Your task to perform on an android device: turn vacation reply on in the gmail app Image 0: 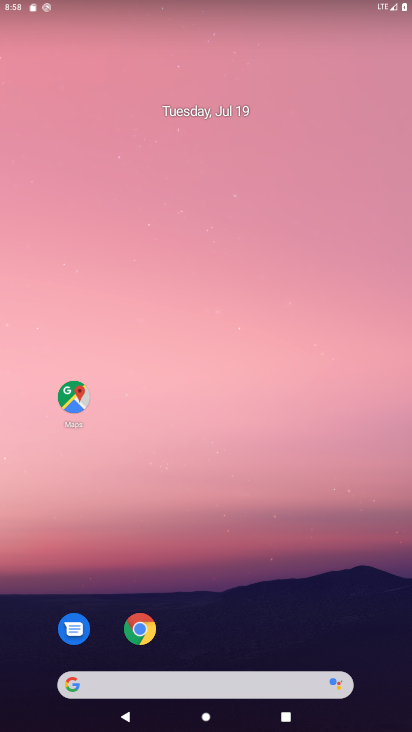
Step 0: drag from (189, 650) to (193, 2)
Your task to perform on an android device: turn vacation reply on in the gmail app Image 1: 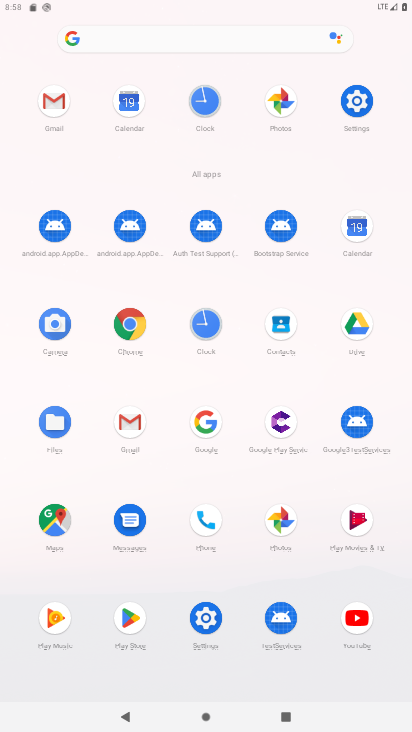
Step 1: click (125, 423)
Your task to perform on an android device: turn vacation reply on in the gmail app Image 2: 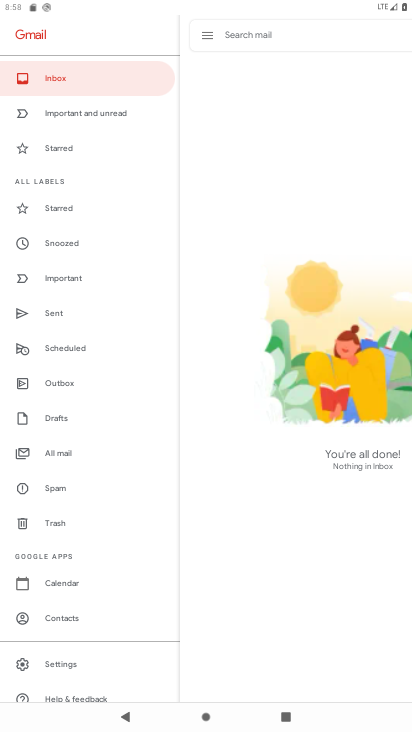
Step 2: click (75, 662)
Your task to perform on an android device: turn vacation reply on in the gmail app Image 3: 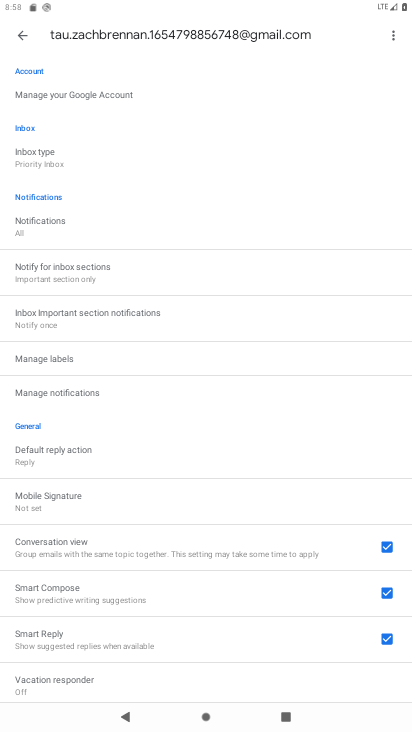
Step 3: drag from (146, 593) to (73, 93)
Your task to perform on an android device: turn vacation reply on in the gmail app Image 4: 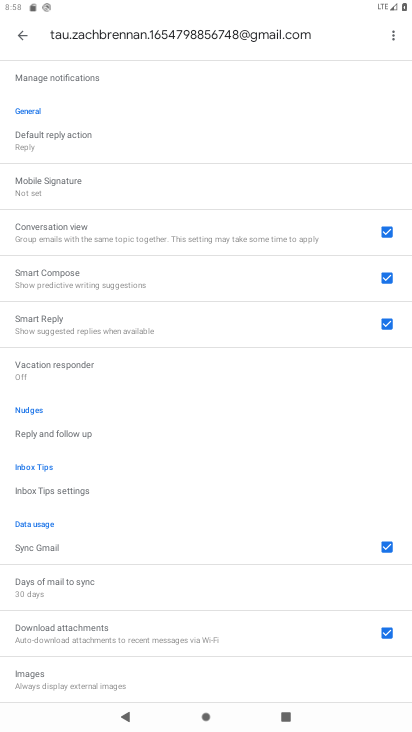
Step 4: drag from (191, 504) to (184, 8)
Your task to perform on an android device: turn vacation reply on in the gmail app Image 5: 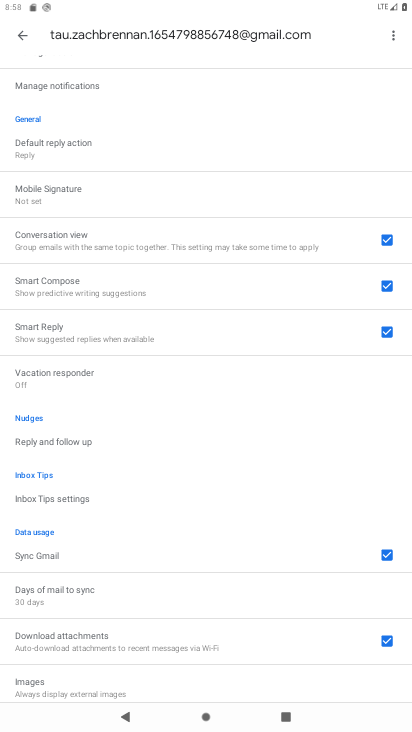
Step 5: click (84, 388)
Your task to perform on an android device: turn vacation reply on in the gmail app Image 6: 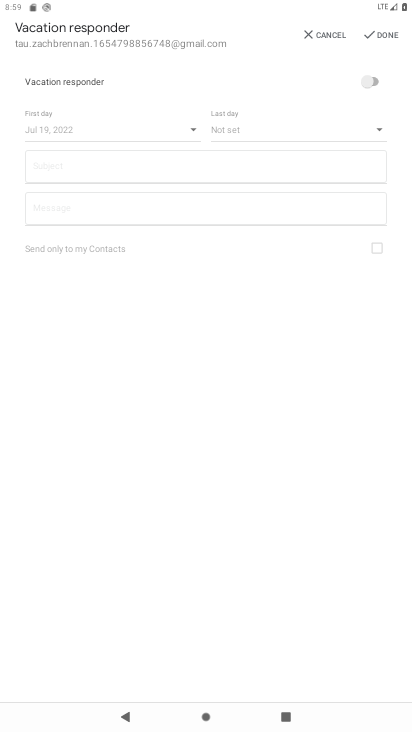
Step 6: click (365, 78)
Your task to perform on an android device: turn vacation reply on in the gmail app Image 7: 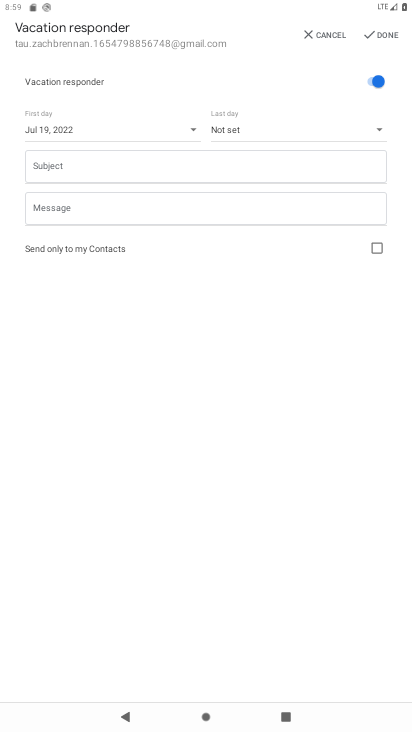
Step 7: click (392, 29)
Your task to perform on an android device: turn vacation reply on in the gmail app Image 8: 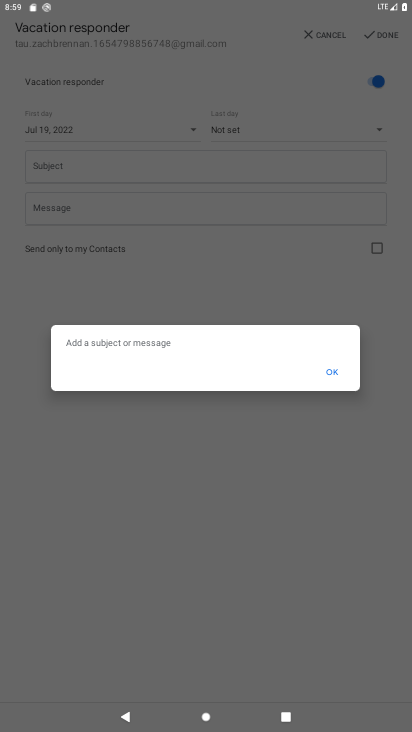
Step 8: task complete